Your task to perform on an android device: set an alarm Image 0: 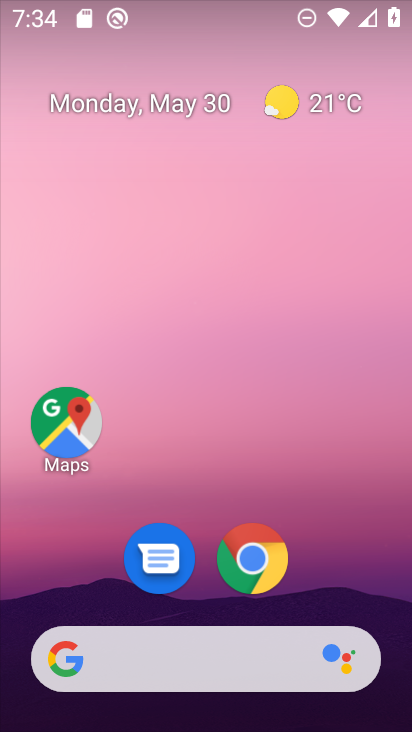
Step 0: drag from (338, 528) to (245, 65)
Your task to perform on an android device: set an alarm Image 1: 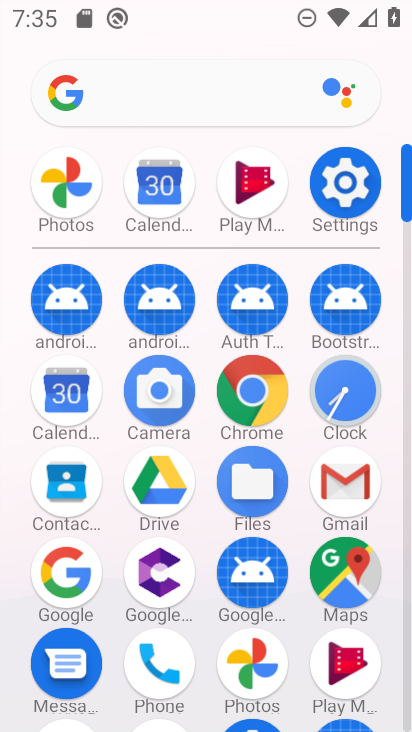
Step 1: click (364, 408)
Your task to perform on an android device: set an alarm Image 2: 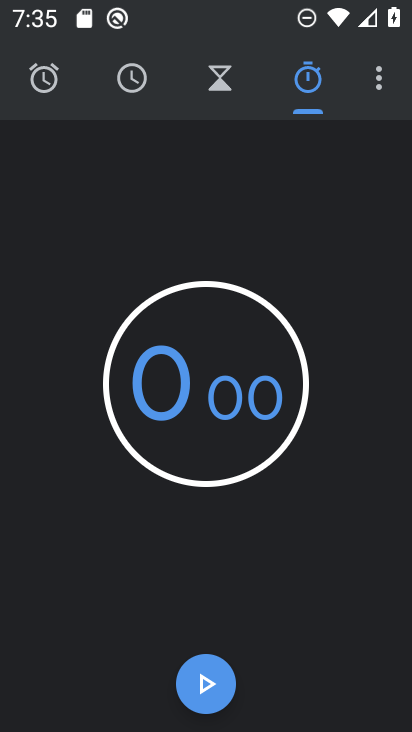
Step 2: click (59, 75)
Your task to perform on an android device: set an alarm Image 3: 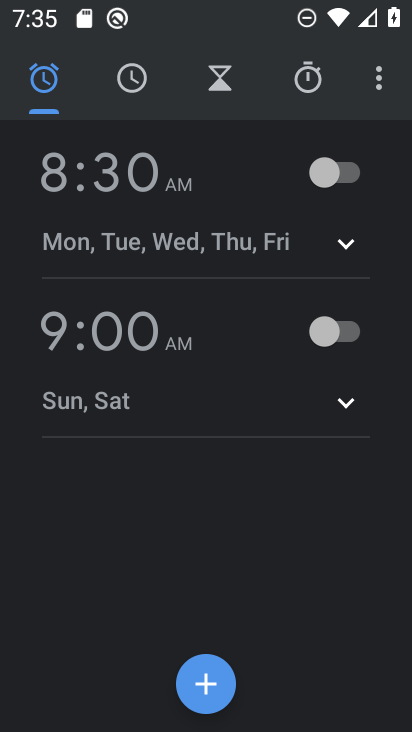
Step 3: click (211, 682)
Your task to perform on an android device: set an alarm Image 4: 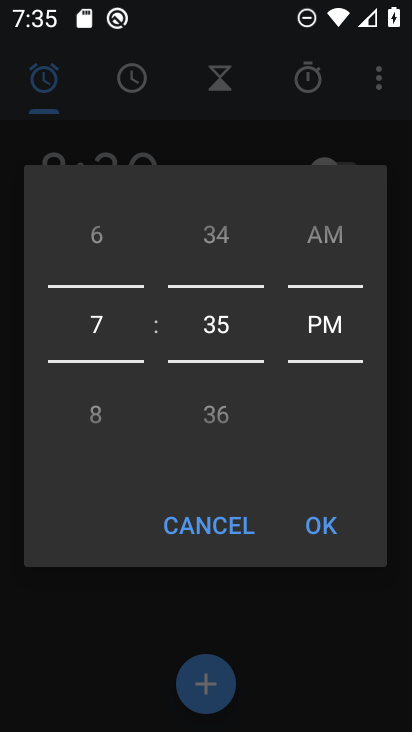
Step 4: click (334, 528)
Your task to perform on an android device: set an alarm Image 5: 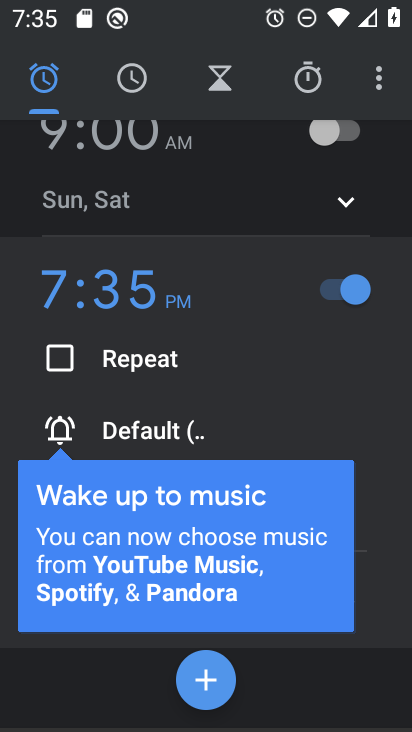
Step 5: task complete